Your task to perform on an android device: toggle location history Image 0: 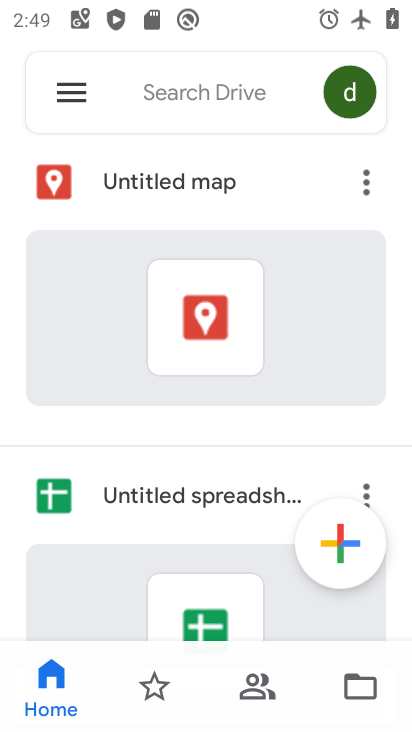
Step 0: press home button
Your task to perform on an android device: toggle location history Image 1: 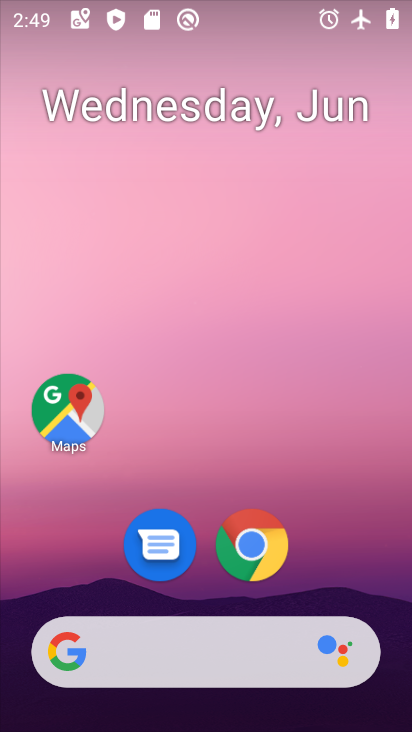
Step 1: drag from (296, 527) to (315, 161)
Your task to perform on an android device: toggle location history Image 2: 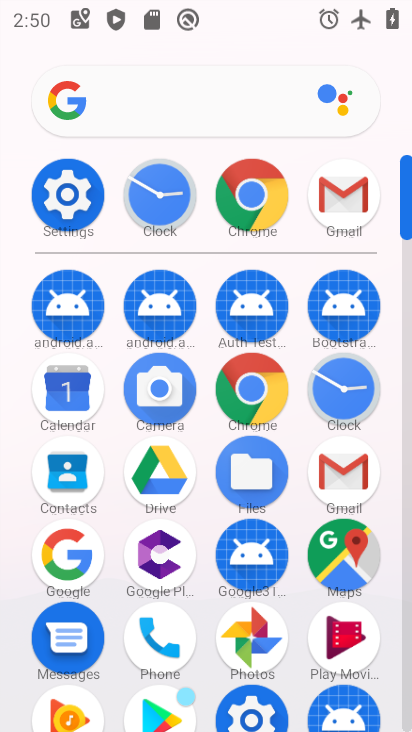
Step 2: click (76, 202)
Your task to perform on an android device: toggle location history Image 3: 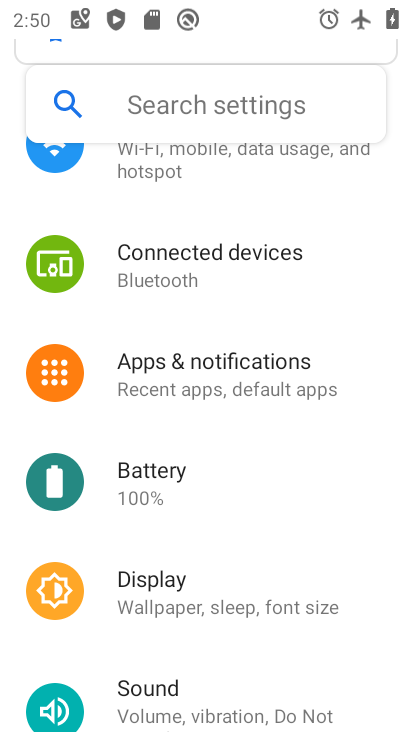
Step 3: drag from (242, 511) to (293, 156)
Your task to perform on an android device: toggle location history Image 4: 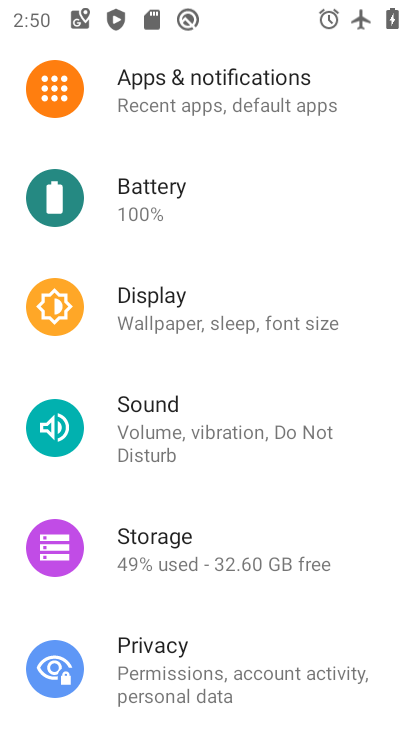
Step 4: drag from (244, 175) to (225, 575)
Your task to perform on an android device: toggle location history Image 5: 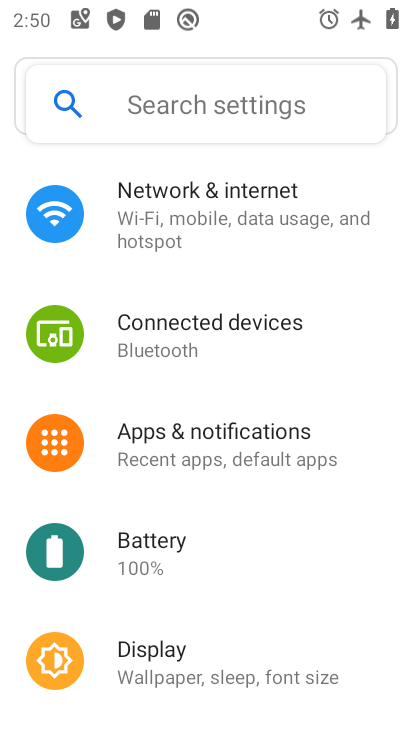
Step 5: drag from (252, 229) to (266, 156)
Your task to perform on an android device: toggle location history Image 6: 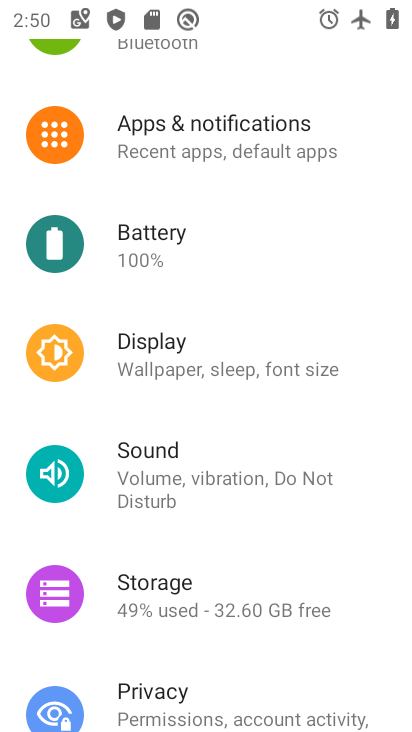
Step 6: drag from (252, 551) to (279, 182)
Your task to perform on an android device: toggle location history Image 7: 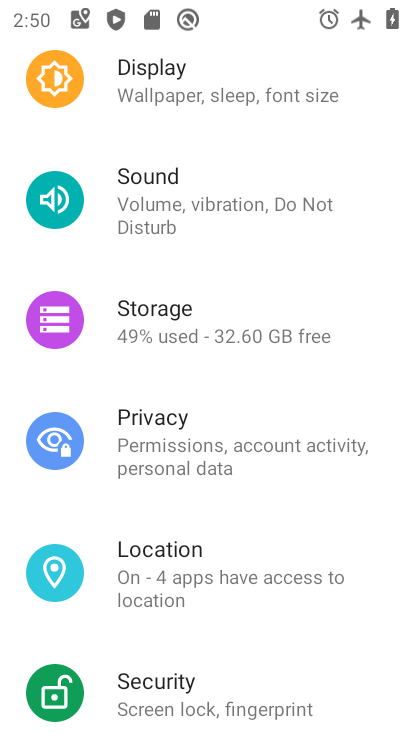
Step 7: click (172, 564)
Your task to perform on an android device: toggle location history Image 8: 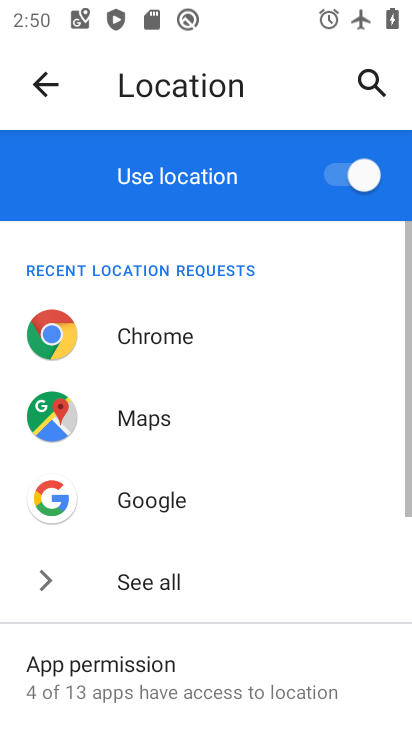
Step 8: drag from (320, 533) to (350, 181)
Your task to perform on an android device: toggle location history Image 9: 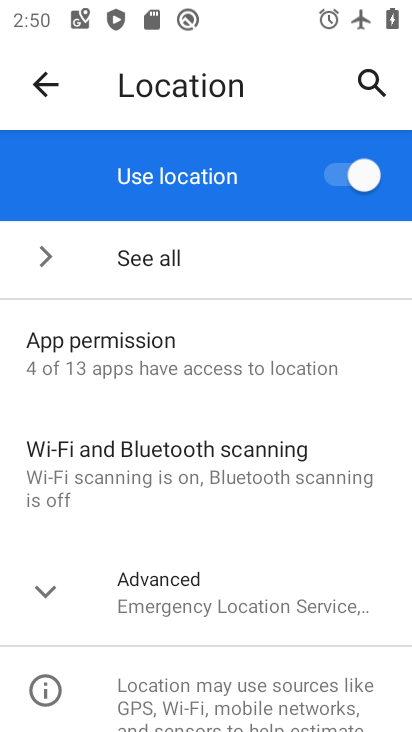
Step 9: click (148, 588)
Your task to perform on an android device: toggle location history Image 10: 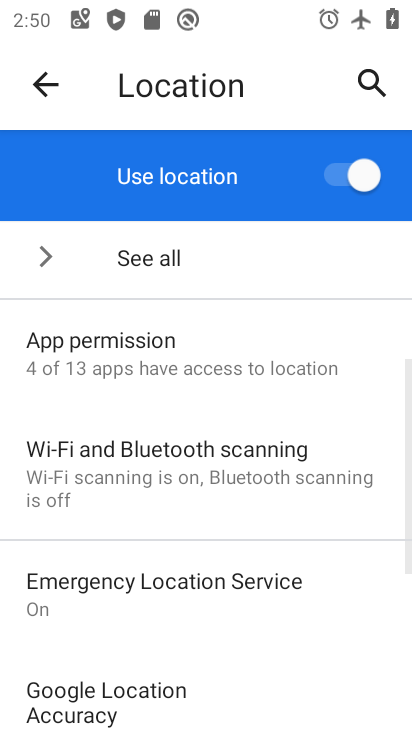
Step 10: drag from (296, 663) to (354, 241)
Your task to perform on an android device: toggle location history Image 11: 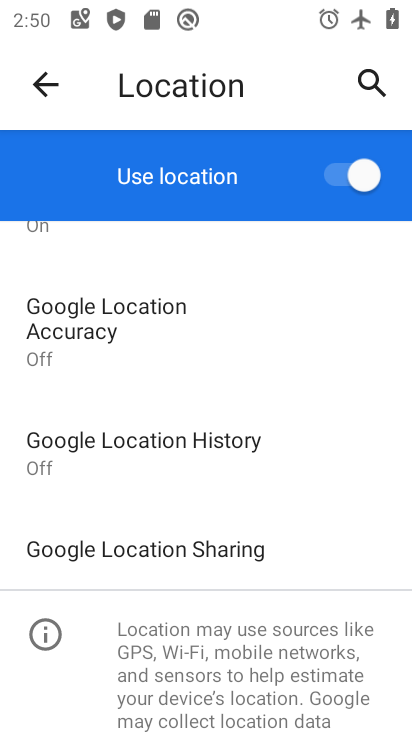
Step 11: click (123, 445)
Your task to perform on an android device: toggle location history Image 12: 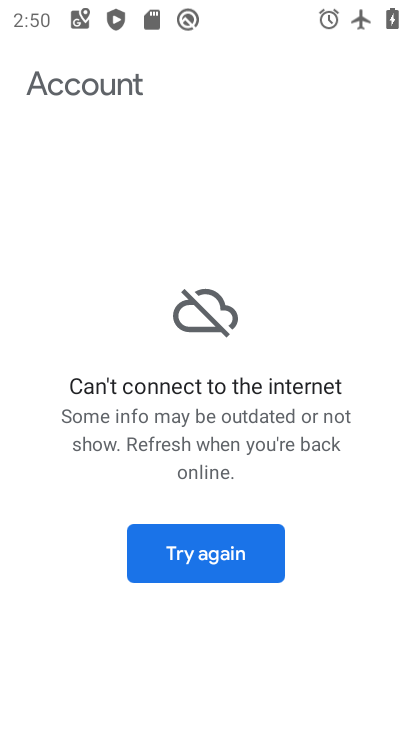
Step 12: task complete